Your task to perform on an android device: toggle airplane mode Image 0: 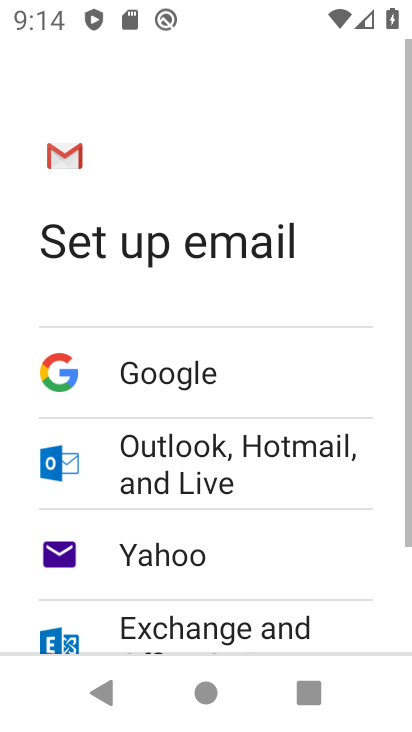
Step 0: press home button
Your task to perform on an android device: toggle airplane mode Image 1: 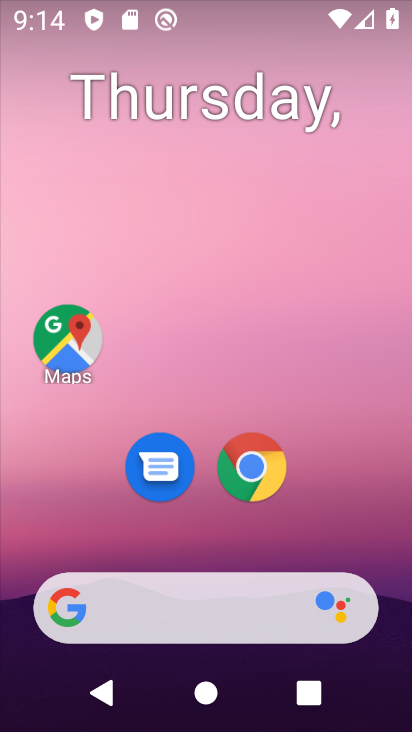
Step 1: drag from (336, 512) to (286, 33)
Your task to perform on an android device: toggle airplane mode Image 2: 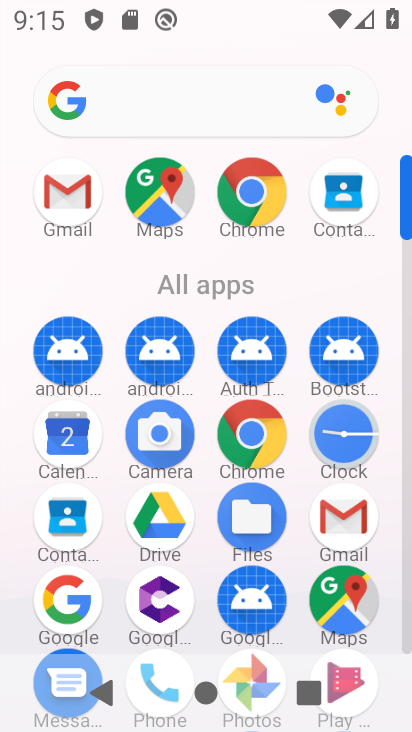
Step 2: drag from (388, 555) to (398, 132)
Your task to perform on an android device: toggle airplane mode Image 3: 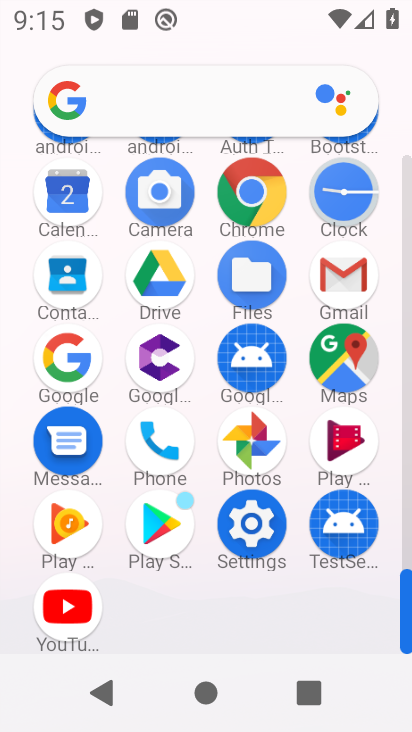
Step 3: click (246, 516)
Your task to perform on an android device: toggle airplane mode Image 4: 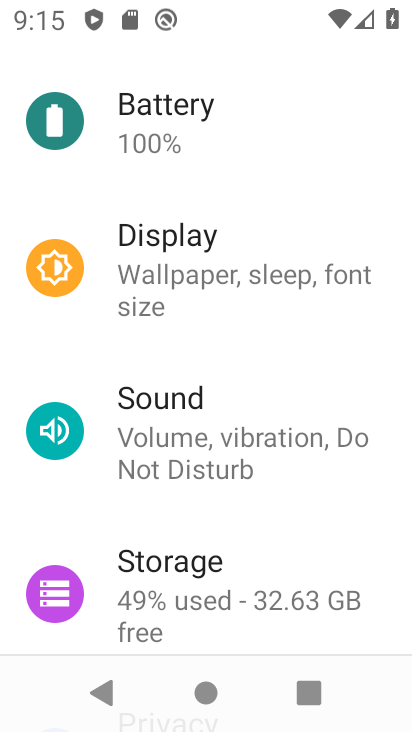
Step 4: drag from (207, 116) to (219, 645)
Your task to perform on an android device: toggle airplane mode Image 5: 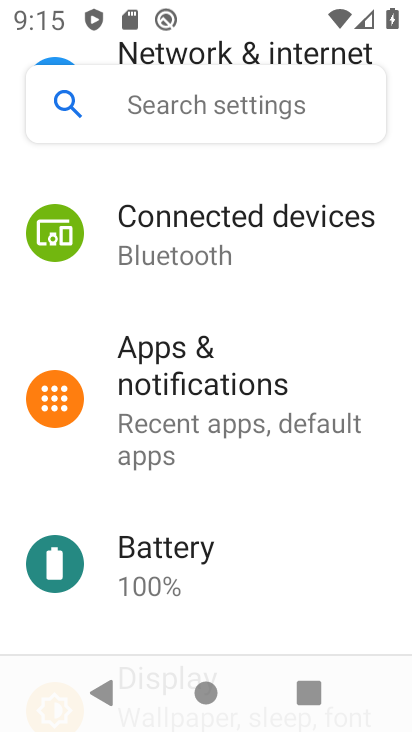
Step 5: drag from (218, 212) to (242, 707)
Your task to perform on an android device: toggle airplane mode Image 6: 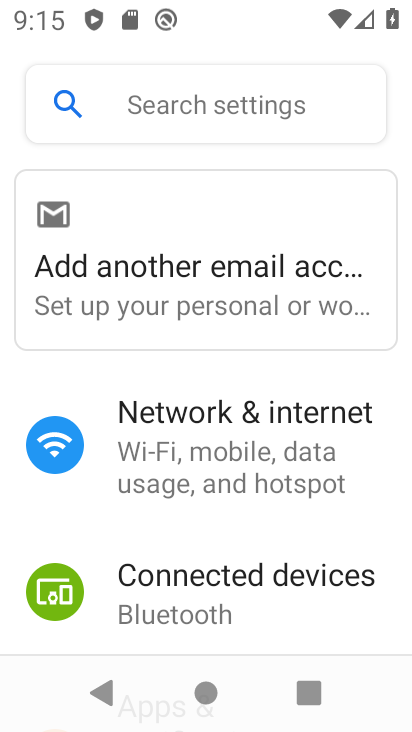
Step 6: click (252, 484)
Your task to perform on an android device: toggle airplane mode Image 7: 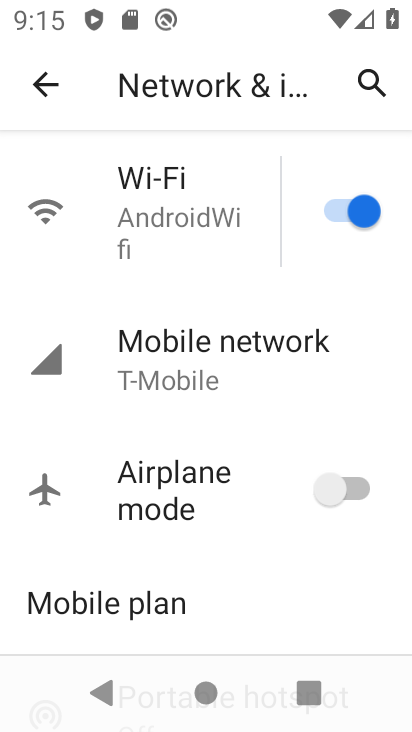
Step 7: click (341, 473)
Your task to perform on an android device: toggle airplane mode Image 8: 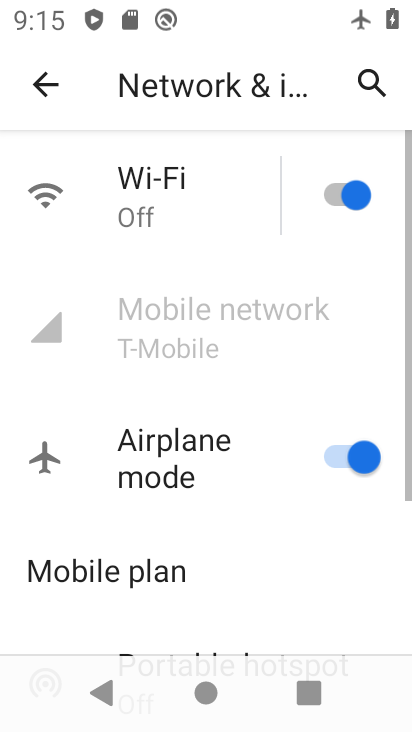
Step 8: task complete